Your task to perform on an android device: change the clock style Image 0: 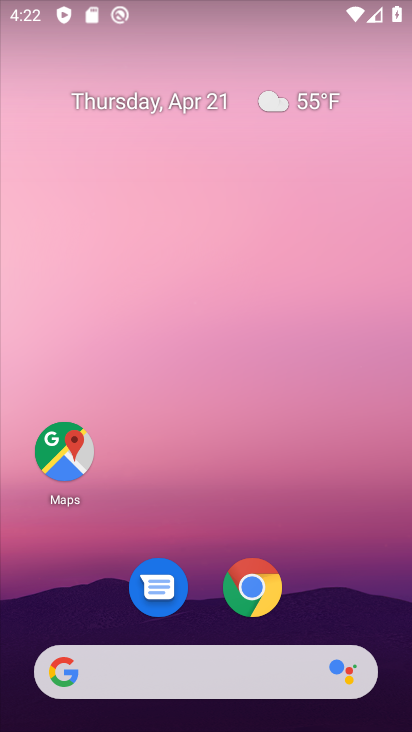
Step 0: drag from (368, 585) to (386, 108)
Your task to perform on an android device: change the clock style Image 1: 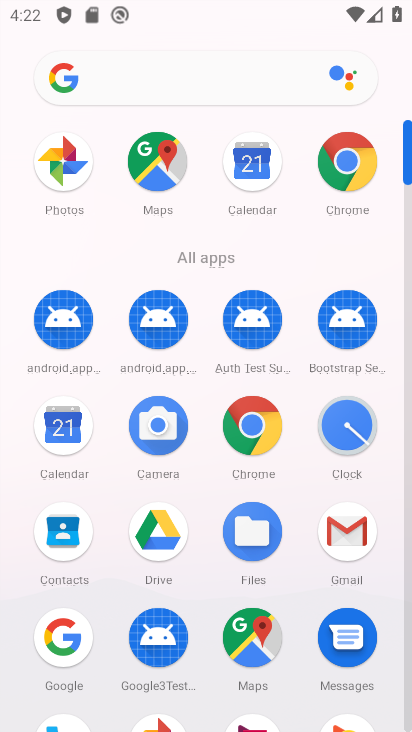
Step 1: click (339, 432)
Your task to perform on an android device: change the clock style Image 2: 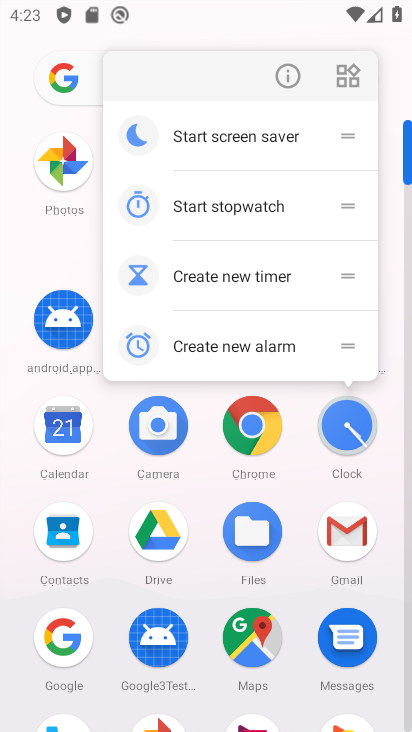
Step 2: click (345, 425)
Your task to perform on an android device: change the clock style Image 3: 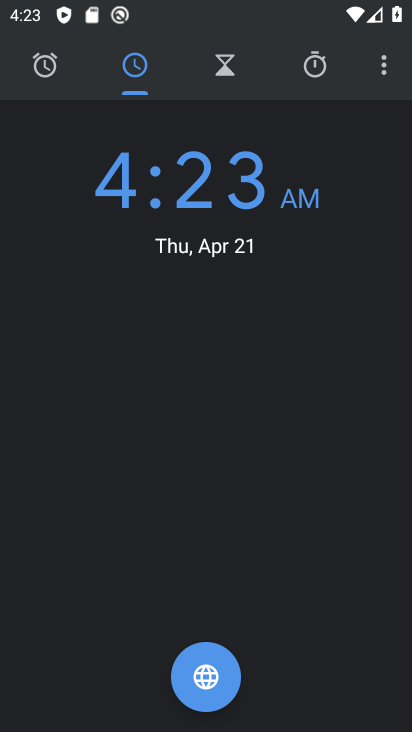
Step 3: click (383, 64)
Your task to perform on an android device: change the clock style Image 4: 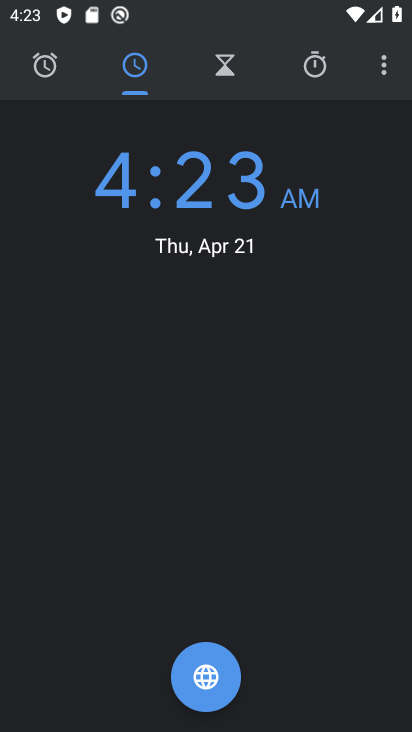
Step 4: click (385, 76)
Your task to perform on an android device: change the clock style Image 5: 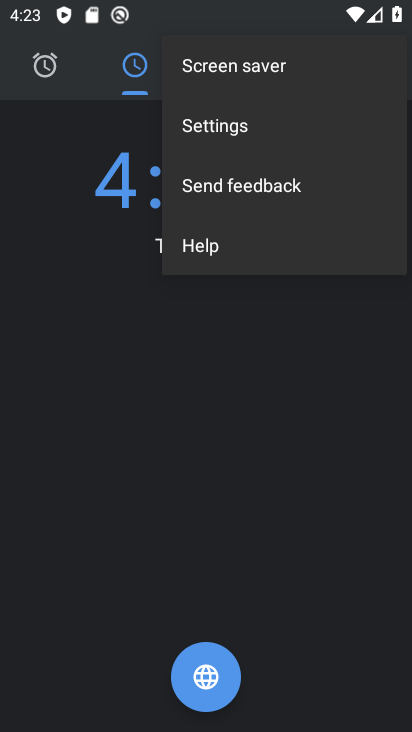
Step 5: click (228, 125)
Your task to perform on an android device: change the clock style Image 6: 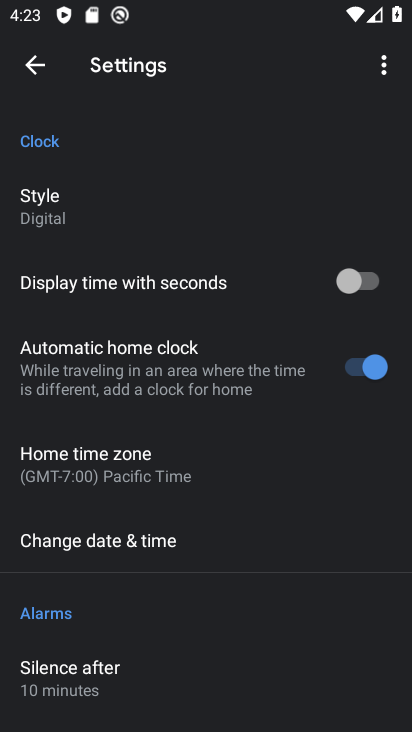
Step 6: click (49, 216)
Your task to perform on an android device: change the clock style Image 7: 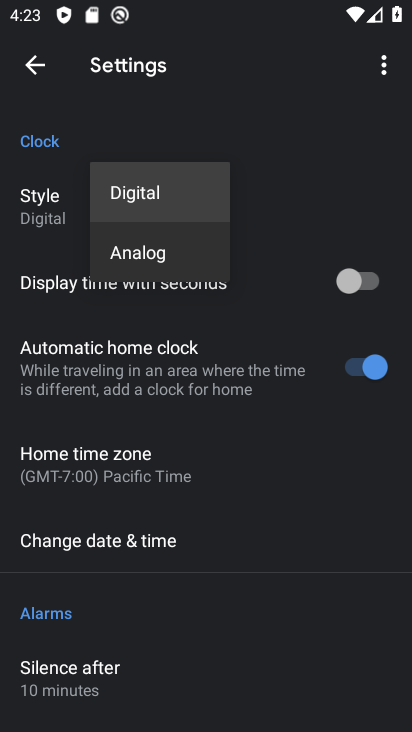
Step 7: click (157, 255)
Your task to perform on an android device: change the clock style Image 8: 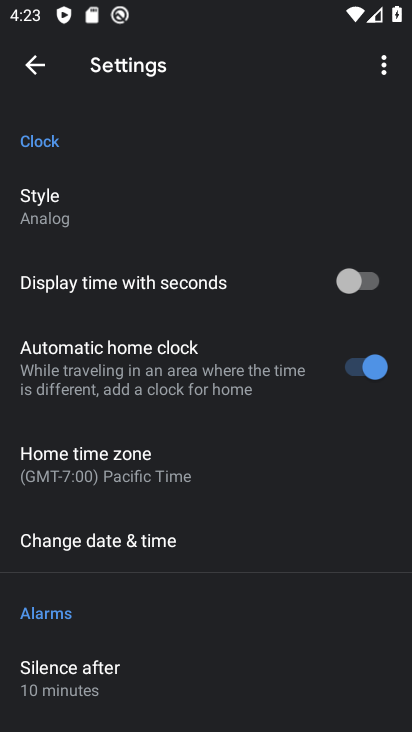
Step 8: task complete